Your task to perform on an android device: Go to Maps Image 0: 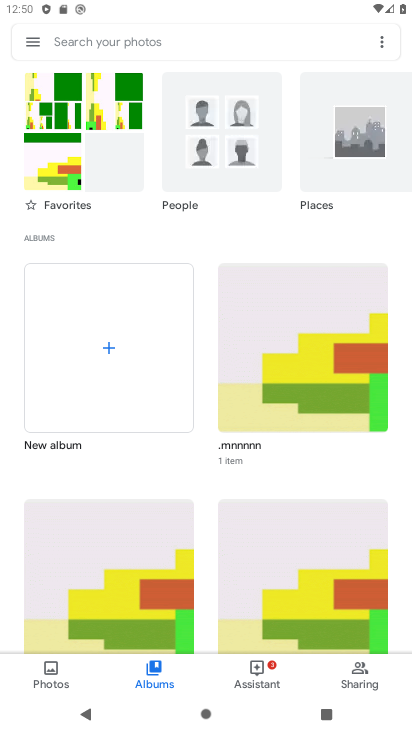
Step 0: press home button
Your task to perform on an android device: Go to Maps Image 1: 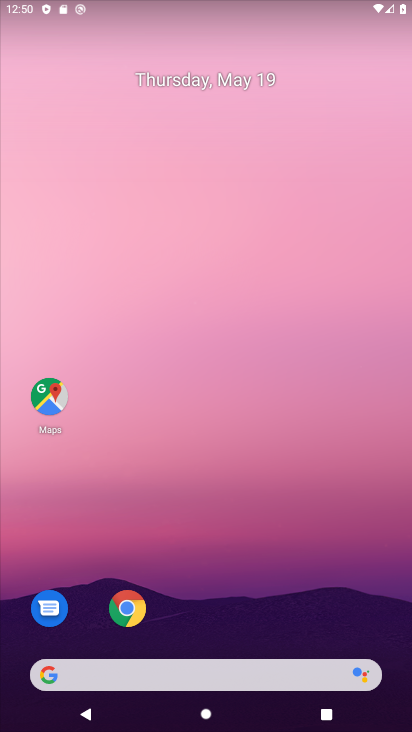
Step 1: click (58, 403)
Your task to perform on an android device: Go to Maps Image 2: 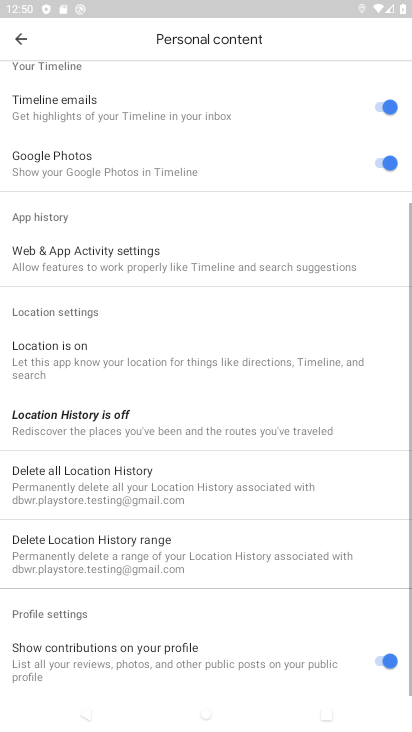
Step 2: click (16, 32)
Your task to perform on an android device: Go to Maps Image 3: 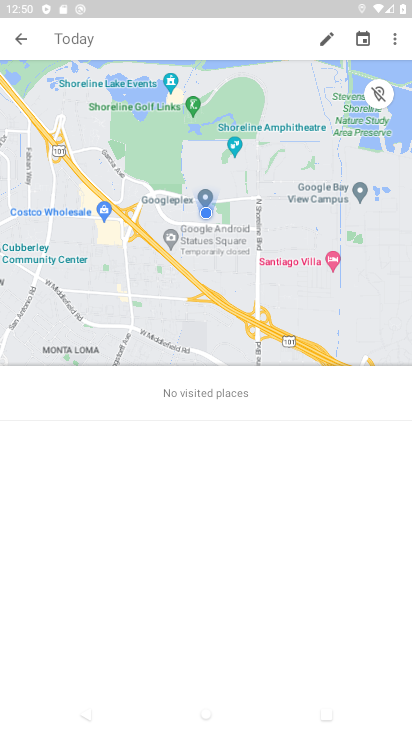
Step 3: click (8, 34)
Your task to perform on an android device: Go to Maps Image 4: 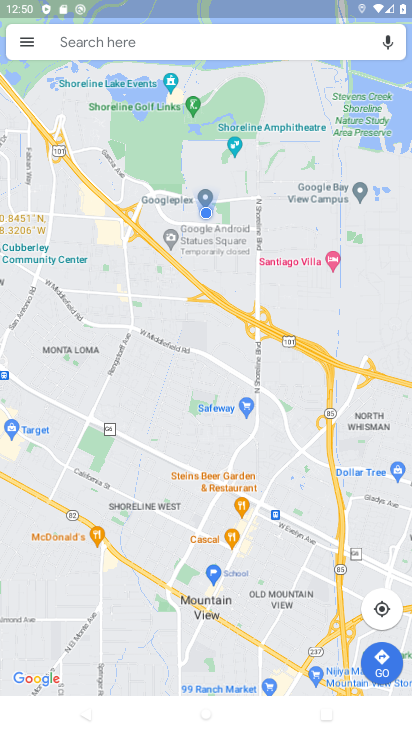
Step 4: task complete